Your task to perform on an android device: check out phone information Image 0: 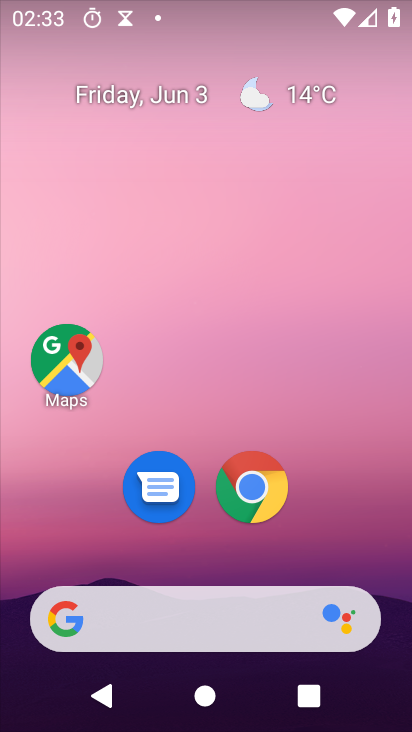
Step 0: drag from (355, 534) to (221, 58)
Your task to perform on an android device: check out phone information Image 1: 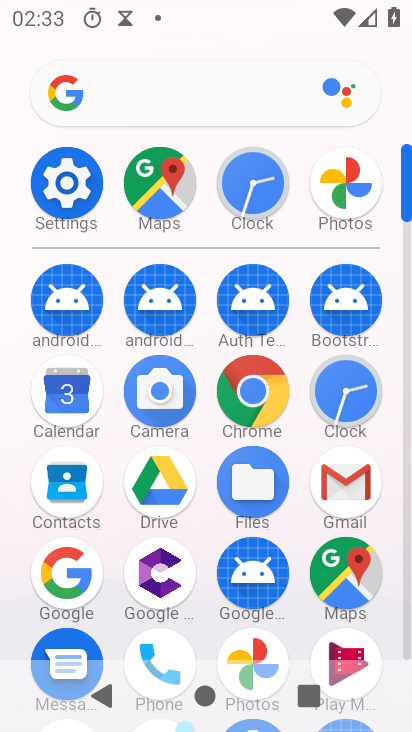
Step 1: click (64, 178)
Your task to perform on an android device: check out phone information Image 2: 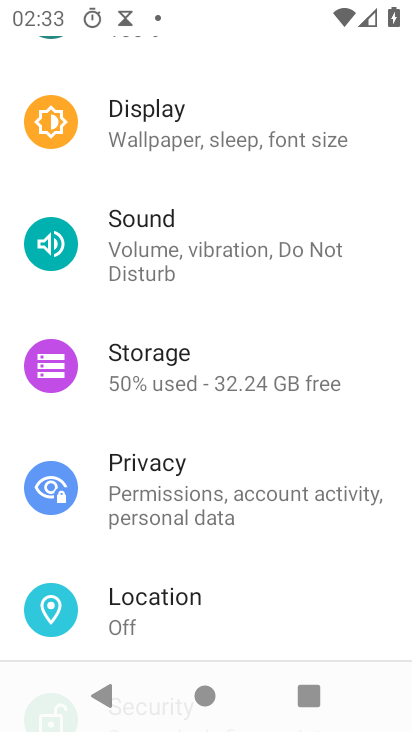
Step 2: drag from (246, 624) to (238, 1)
Your task to perform on an android device: check out phone information Image 3: 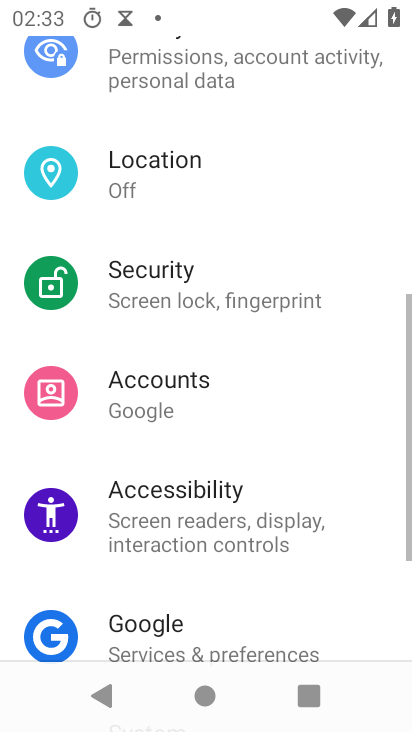
Step 3: drag from (235, 526) to (229, 2)
Your task to perform on an android device: check out phone information Image 4: 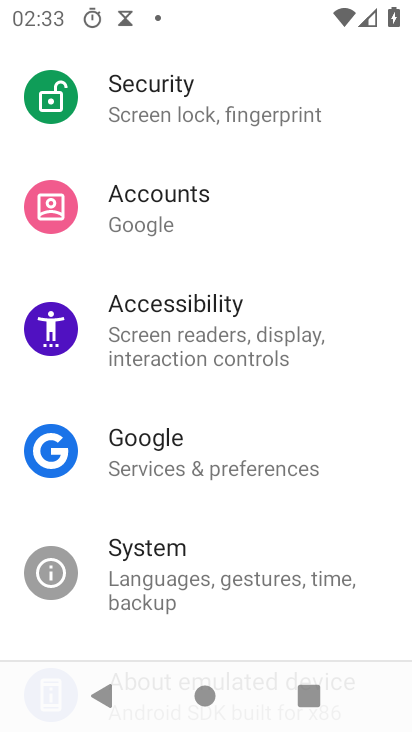
Step 4: drag from (239, 340) to (236, 83)
Your task to perform on an android device: check out phone information Image 5: 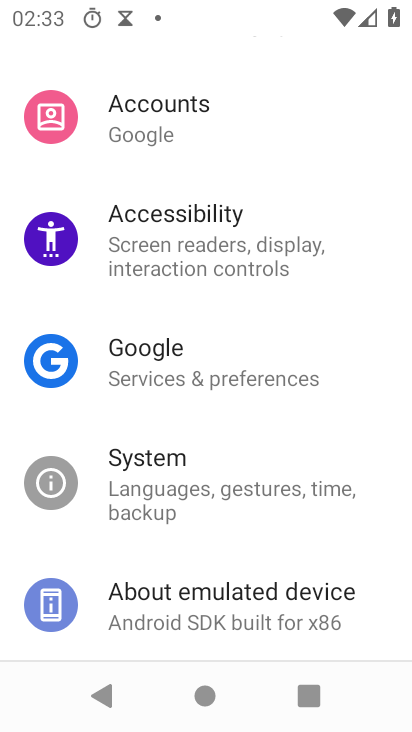
Step 5: click (193, 592)
Your task to perform on an android device: check out phone information Image 6: 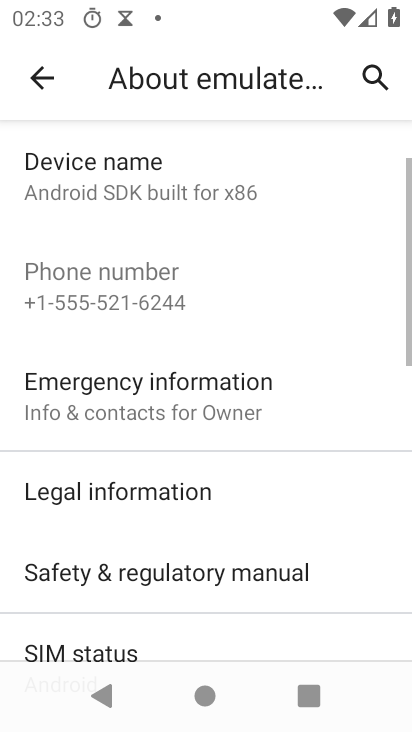
Step 6: task complete